Your task to perform on an android device: uninstall "Speedtest by Ookla" Image 0: 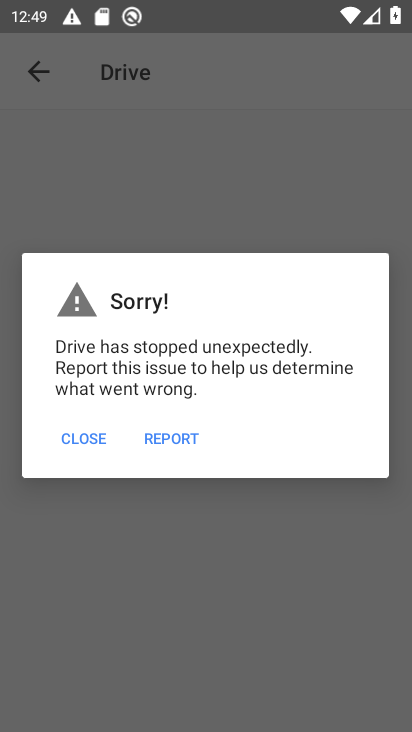
Step 0: press home button
Your task to perform on an android device: uninstall "Speedtest by Ookla" Image 1: 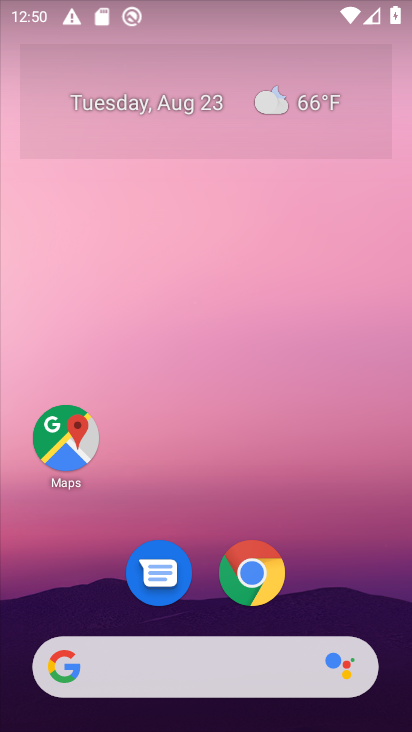
Step 1: drag from (217, 344) to (222, 83)
Your task to perform on an android device: uninstall "Speedtest by Ookla" Image 2: 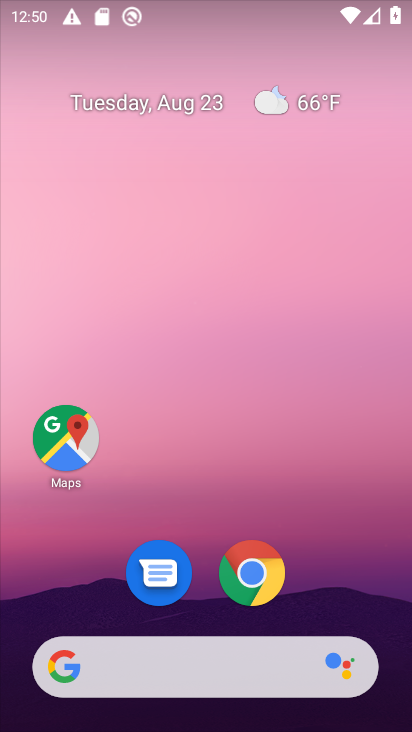
Step 2: drag from (199, 512) to (246, 6)
Your task to perform on an android device: uninstall "Speedtest by Ookla" Image 3: 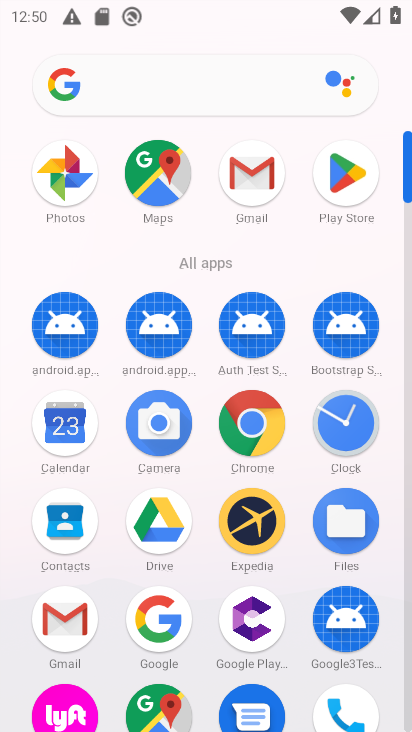
Step 3: click (356, 261)
Your task to perform on an android device: uninstall "Speedtest by Ookla" Image 4: 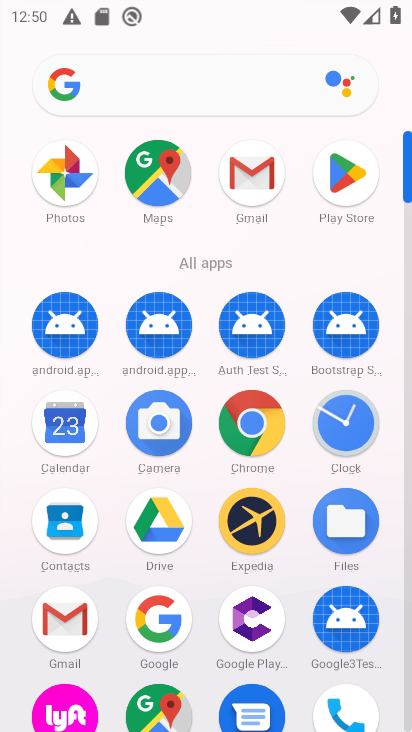
Step 4: click (343, 187)
Your task to perform on an android device: uninstall "Speedtest by Ookla" Image 5: 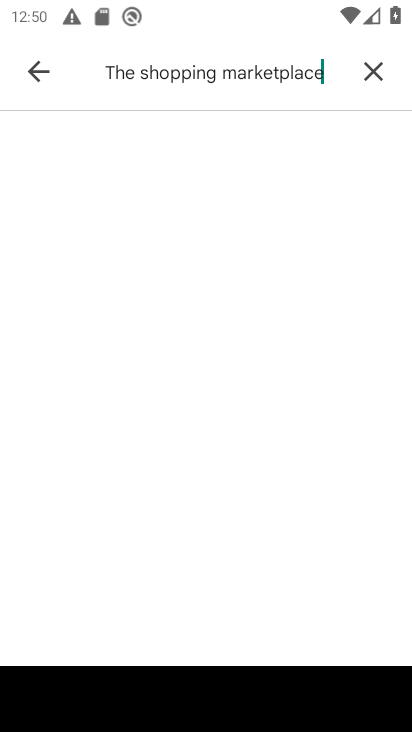
Step 5: click (377, 59)
Your task to perform on an android device: uninstall "Speedtest by Ookla" Image 6: 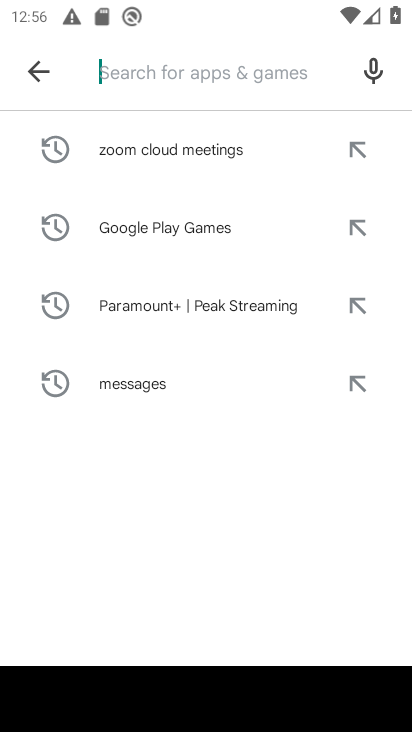
Step 6: type "Speedtest by Ookla"
Your task to perform on an android device: uninstall "Speedtest by Ookla" Image 7: 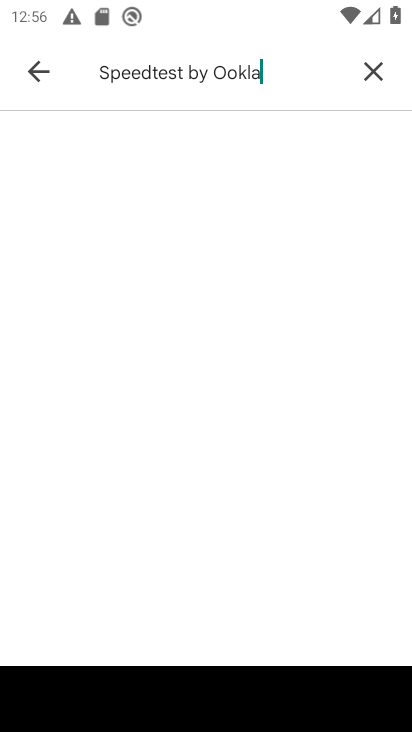
Step 7: type "Speedtest by Ookla"
Your task to perform on an android device: uninstall "Speedtest by Ookla" Image 8: 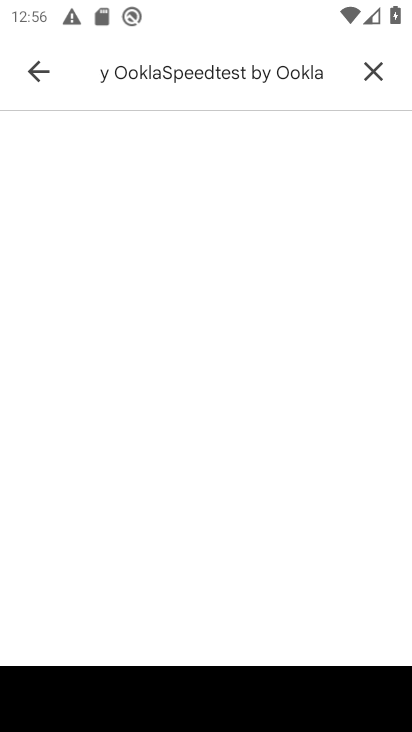
Step 8: click (367, 75)
Your task to perform on an android device: uninstall "Speedtest by Ookla" Image 9: 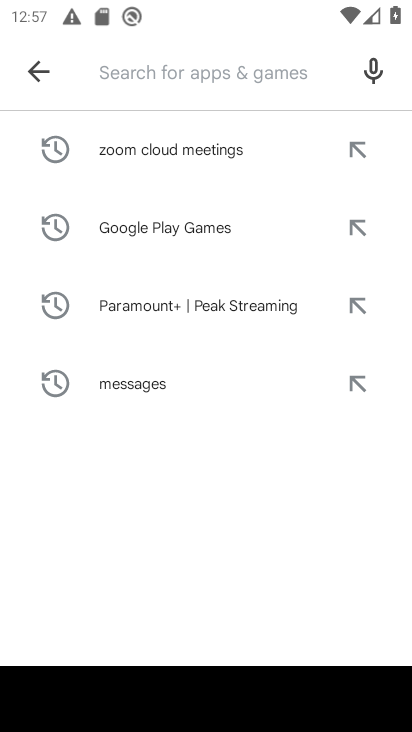
Step 9: type "Speedtest by Ookla"
Your task to perform on an android device: uninstall "Speedtest by Ookla" Image 10: 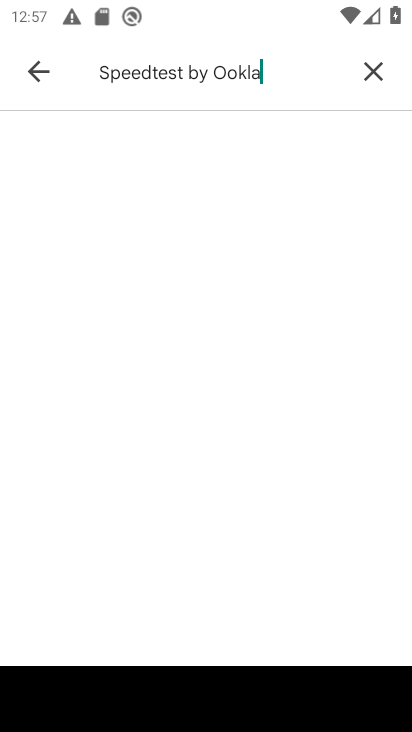
Step 10: type ""
Your task to perform on an android device: uninstall "Speedtest by Ookla" Image 11: 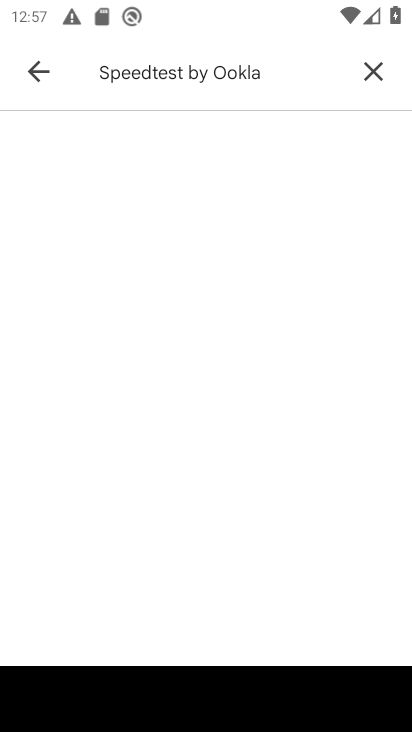
Step 11: task complete